Your task to perform on an android device: Search for "apple airpods pro" on ebay.com, select the first entry, and add it to the cart. Image 0: 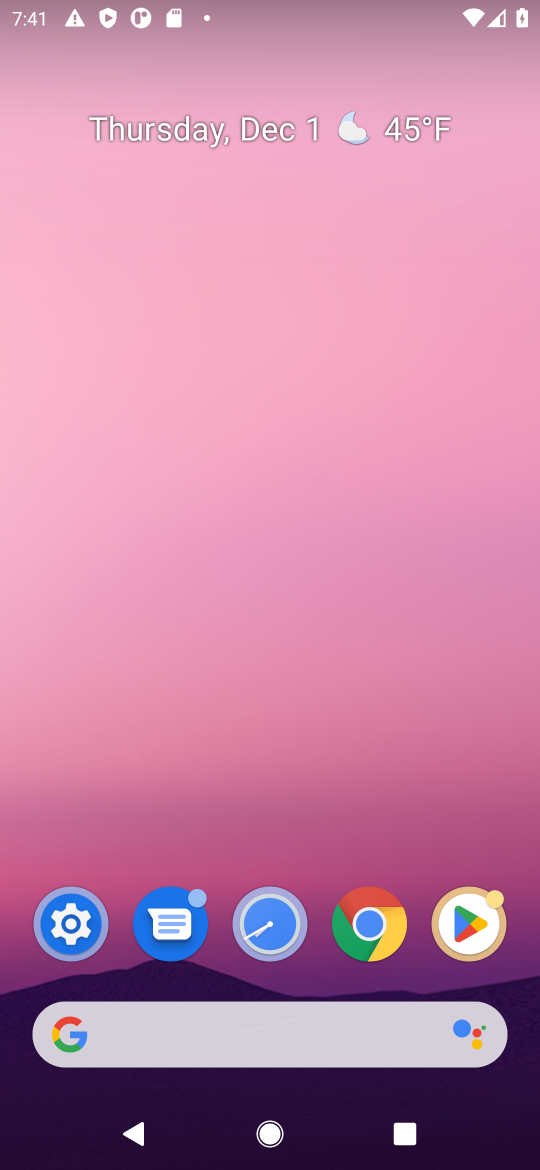
Step 0: click (294, 1039)
Your task to perform on an android device: Search for "apple airpods pro" on ebay.com, select the first entry, and add it to the cart. Image 1: 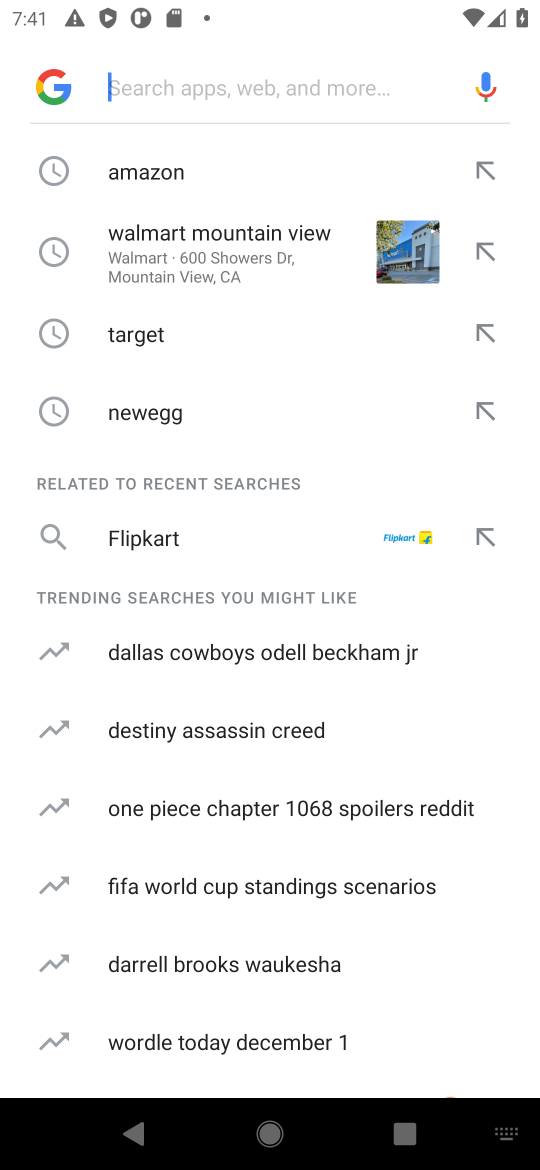
Step 1: type "ebay.com"
Your task to perform on an android device: Search for "apple airpods pro" on ebay.com, select the first entry, and add it to the cart. Image 2: 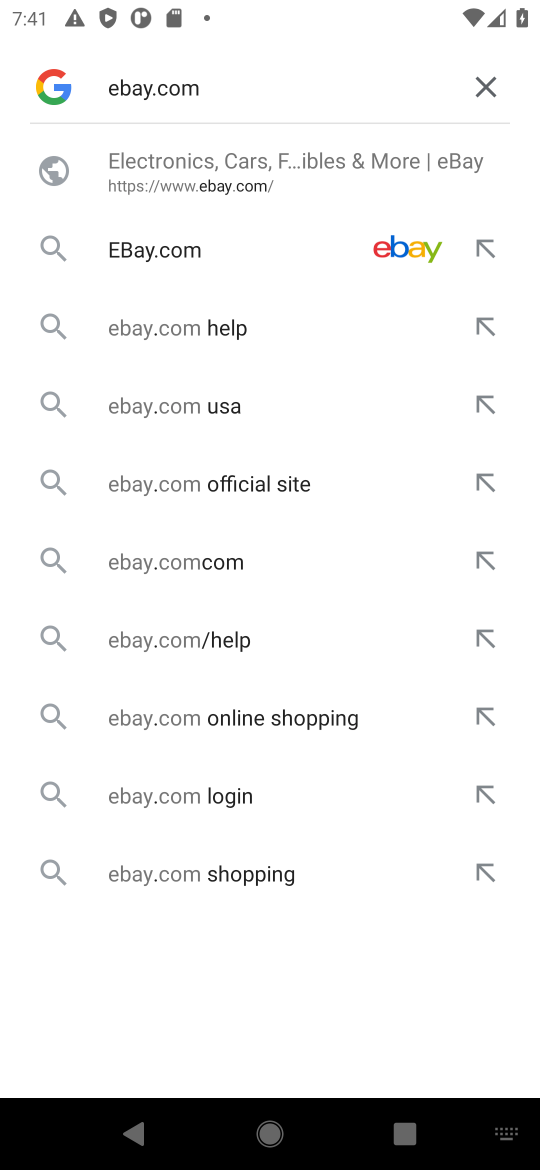
Step 2: click (203, 151)
Your task to perform on an android device: Search for "apple airpods pro" on ebay.com, select the first entry, and add it to the cart. Image 3: 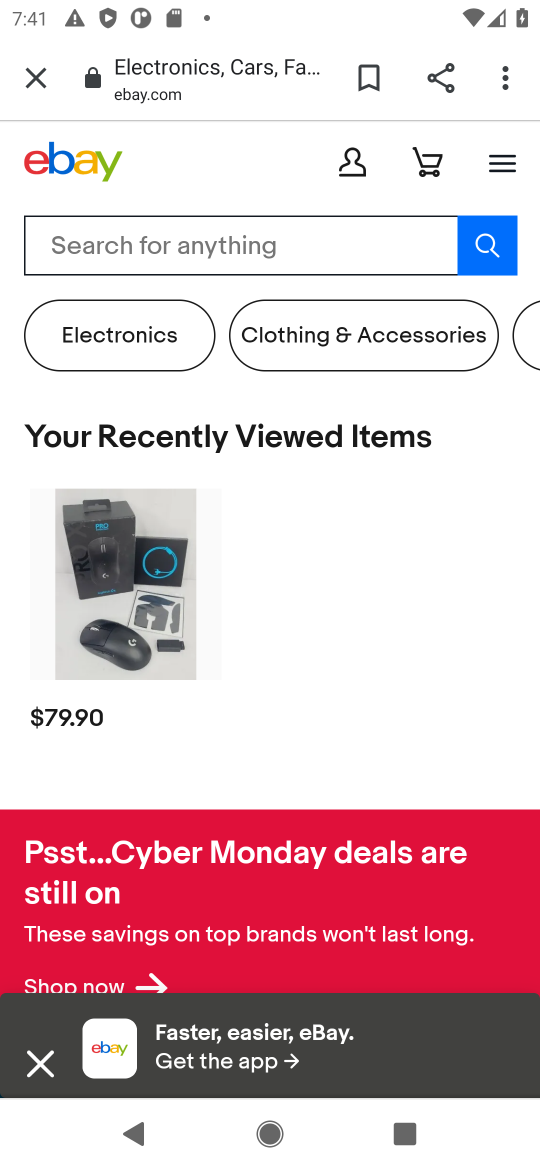
Step 3: click (133, 235)
Your task to perform on an android device: Search for "apple airpods pro" on ebay.com, select the first entry, and add it to the cart. Image 4: 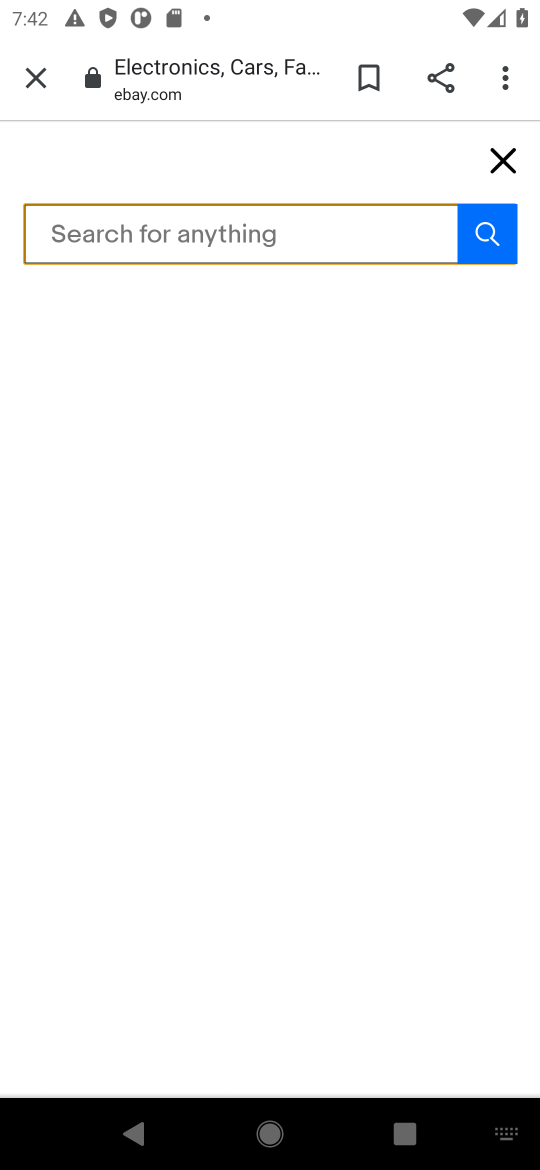
Step 4: type "apple airpod"
Your task to perform on an android device: Search for "apple airpods pro" on ebay.com, select the first entry, and add it to the cart. Image 5: 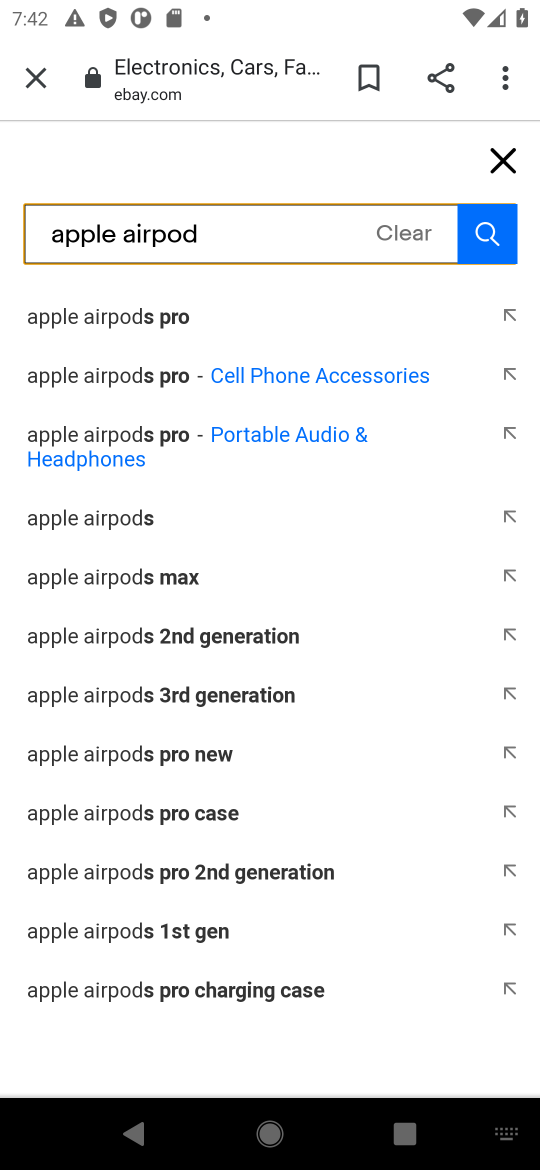
Step 5: click (73, 334)
Your task to perform on an android device: Search for "apple airpods pro" on ebay.com, select the first entry, and add it to the cart. Image 6: 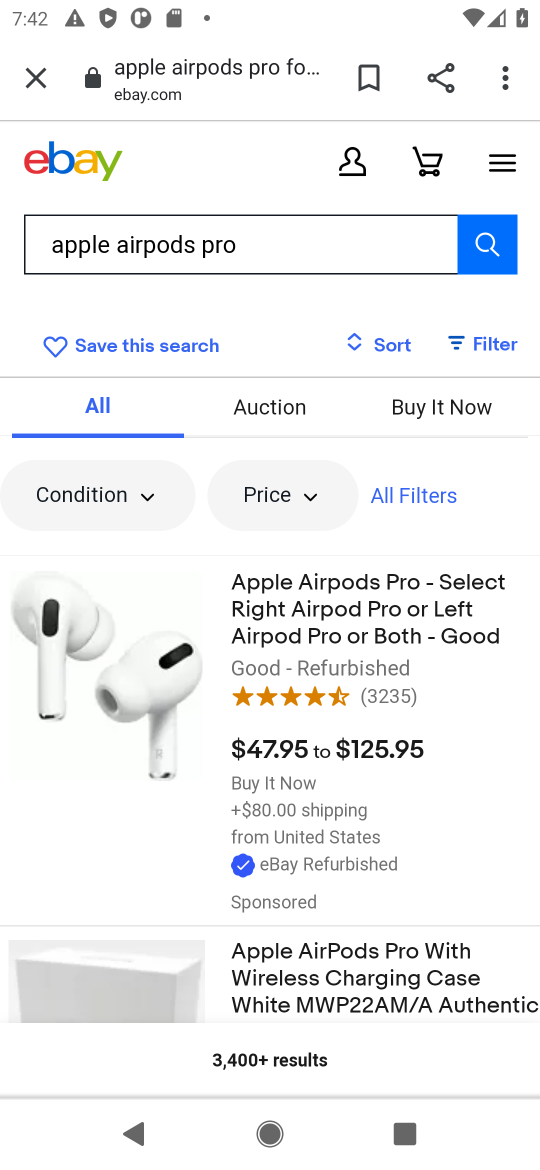
Step 6: click (256, 598)
Your task to perform on an android device: Search for "apple airpods pro" on ebay.com, select the first entry, and add it to the cart. Image 7: 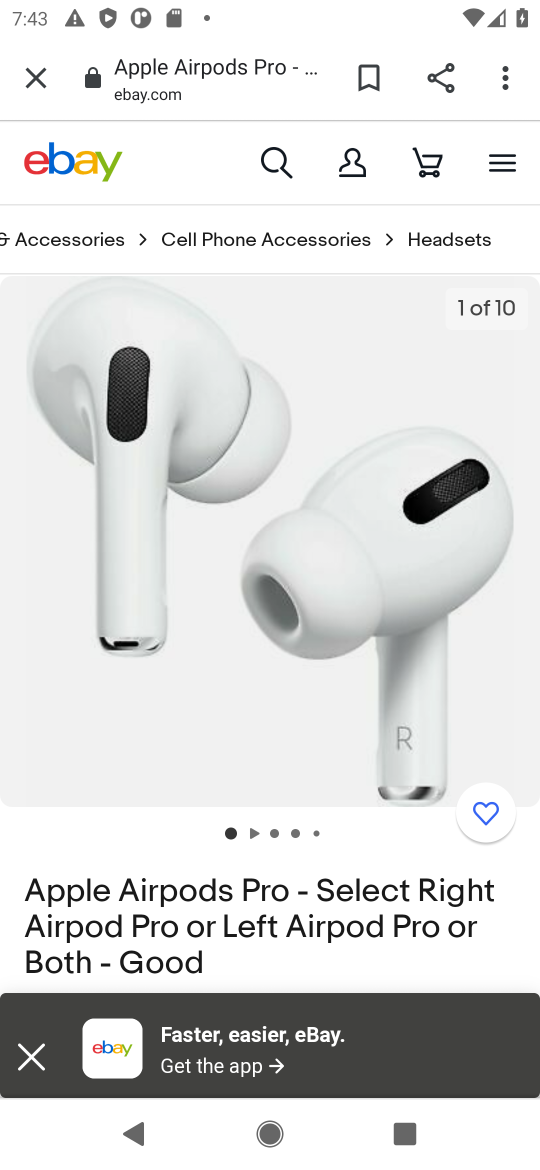
Step 7: click (13, 1075)
Your task to perform on an android device: Search for "apple airpods pro" on ebay.com, select the first entry, and add it to the cart. Image 8: 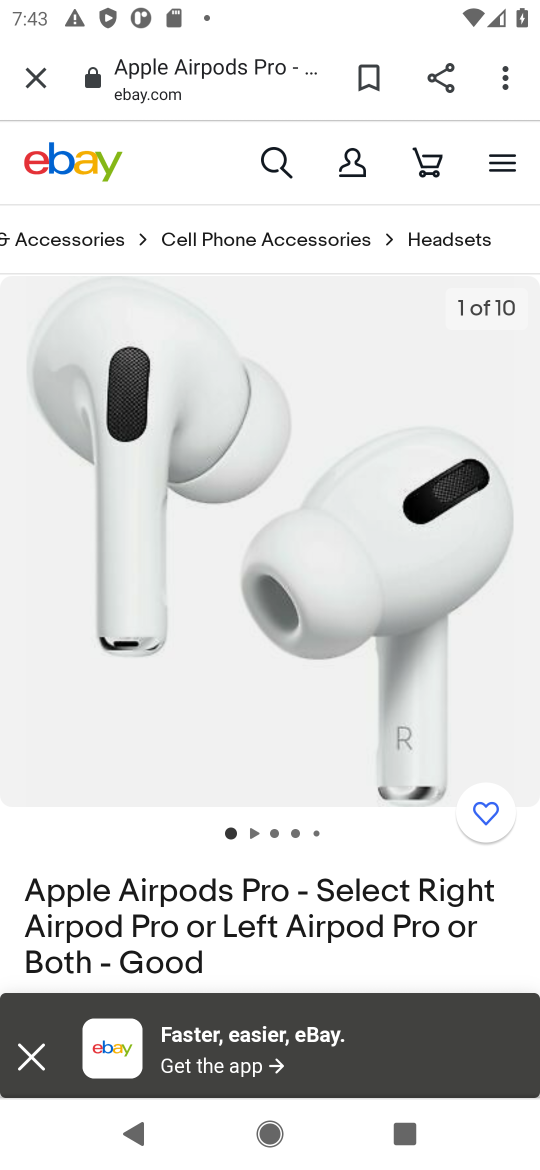
Step 8: drag from (156, 961) to (242, 243)
Your task to perform on an android device: Search for "apple airpods pro" on ebay.com, select the first entry, and add it to the cart. Image 9: 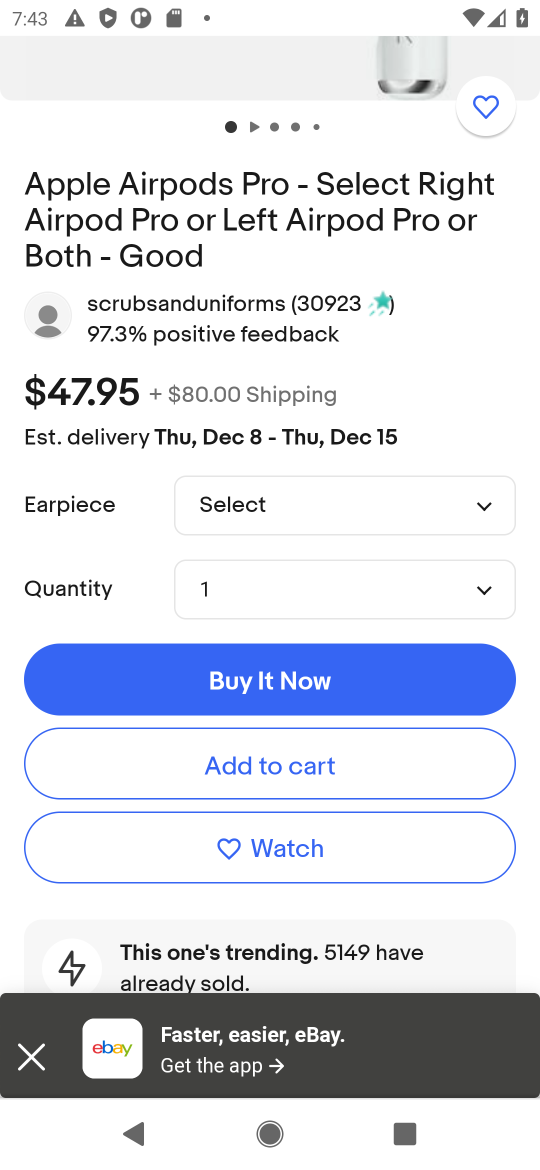
Step 9: click (180, 781)
Your task to perform on an android device: Search for "apple airpods pro" on ebay.com, select the first entry, and add it to the cart. Image 10: 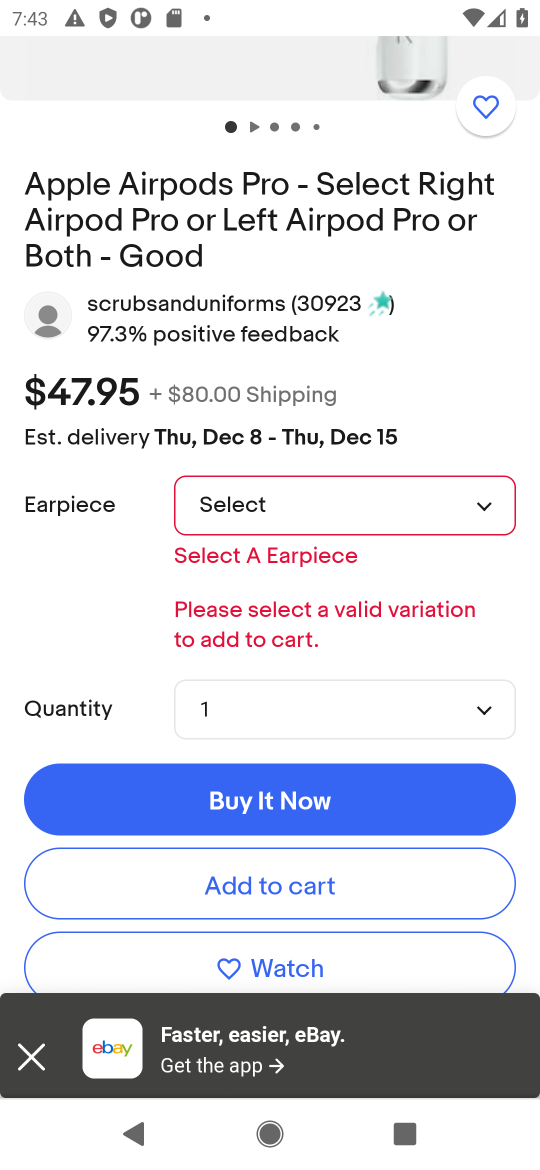
Step 10: task complete